Your task to perform on an android device: turn on priority inbox in the gmail app Image 0: 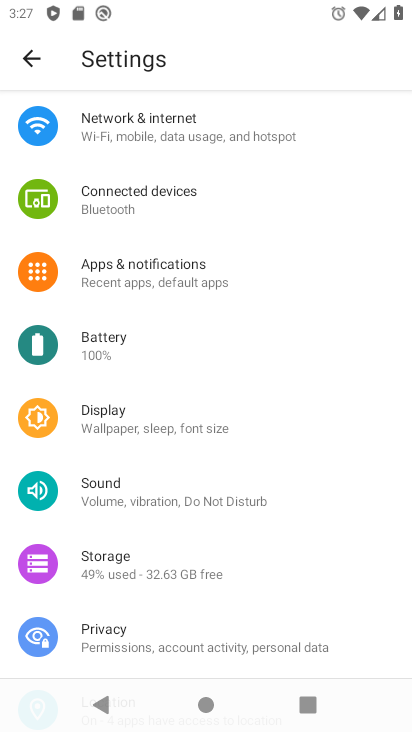
Step 0: press back button
Your task to perform on an android device: turn on priority inbox in the gmail app Image 1: 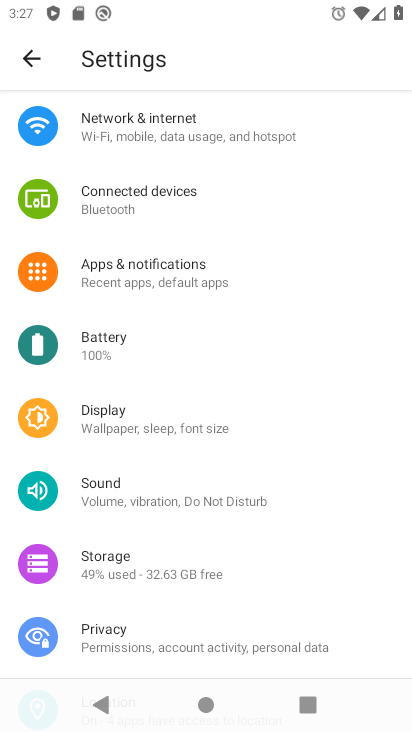
Step 1: press back button
Your task to perform on an android device: turn on priority inbox in the gmail app Image 2: 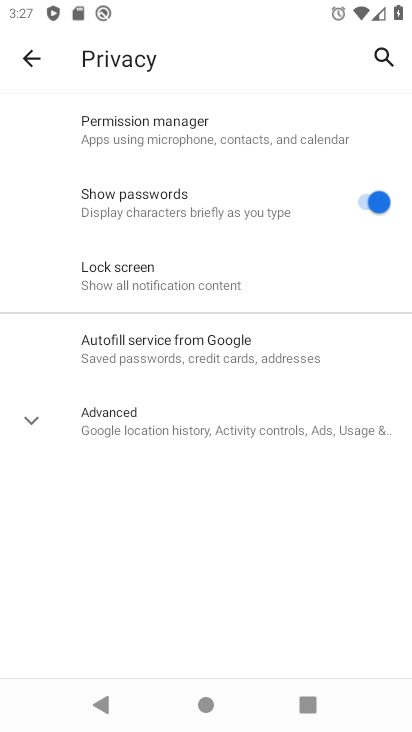
Step 2: press home button
Your task to perform on an android device: turn on priority inbox in the gmail app Image 3: 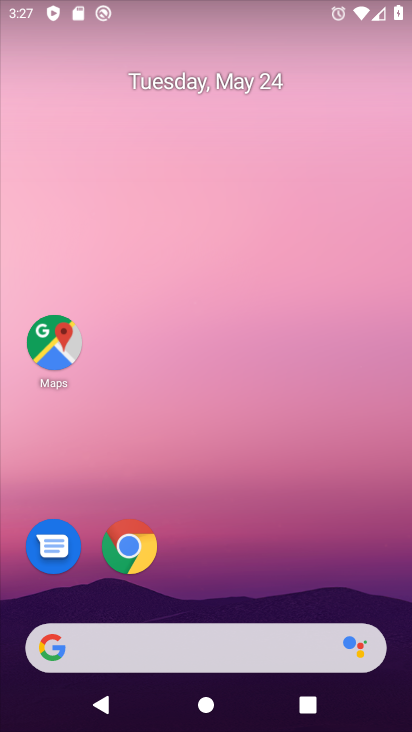
Step 3: drag from (216, 624) to (195, 108)
Your task to perform on an android device: turn on priority inbox in the gmail app Image 4: 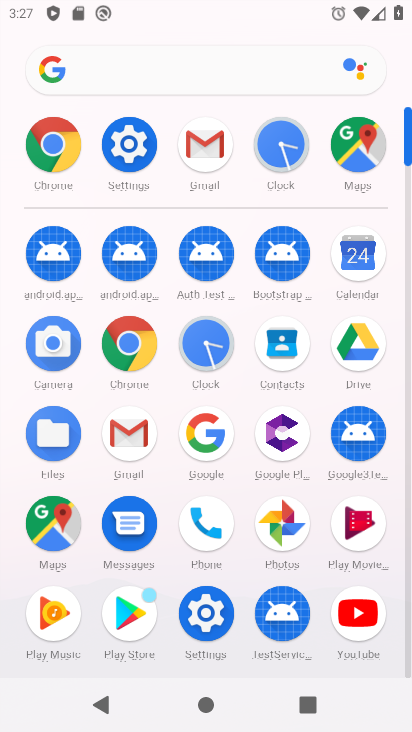
Step 4: click (131, 425)
Your task to perform on an android device: turn on priority inbox in the gmail app Image 5: 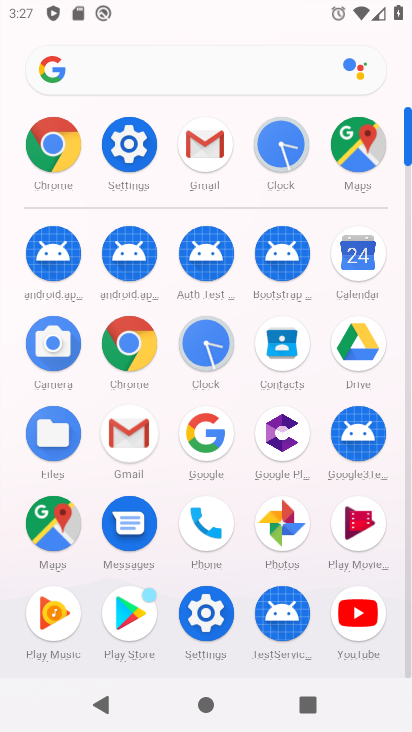
Step 5: click (131, 425)
Your task to perform on an android device: turn on priority inbox in the gmail app Image 6: 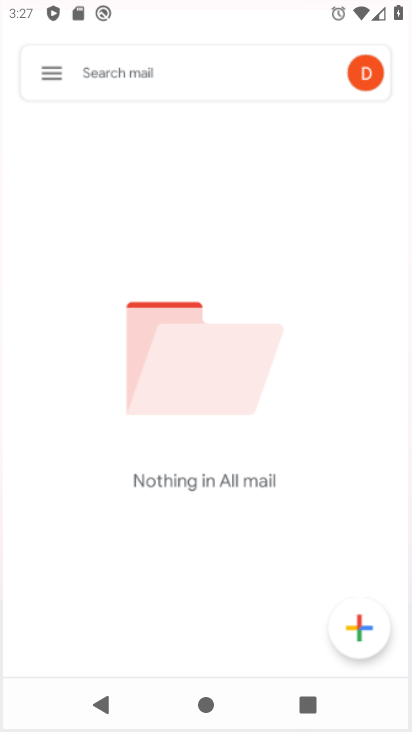
Step 6: click (133, 427)
Your task to perform on an android device: turn on priority inbox in the gmail app Image 7: 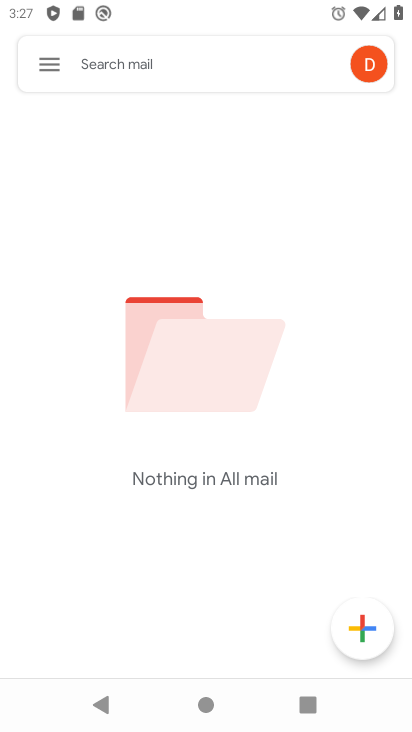
Step 7: click (42, 67)
Your task to perform on an android device: turn on priority inbox in the gmail app Image 8: 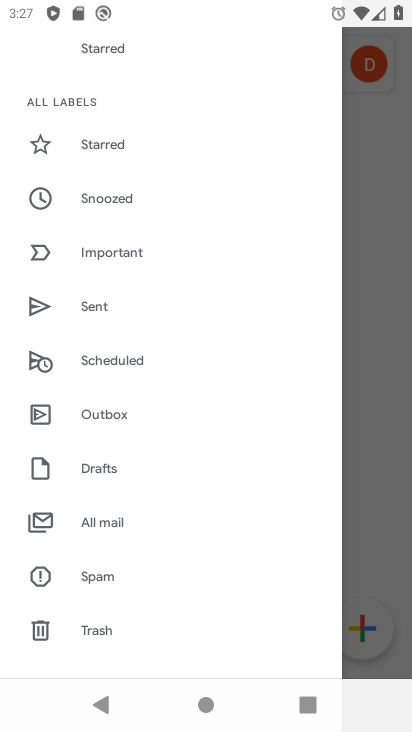
Step 8: drag from (128, 557) to (129, 171)
Your task to perform on an android device: turn on priority inbox in the gmail app Image 9: 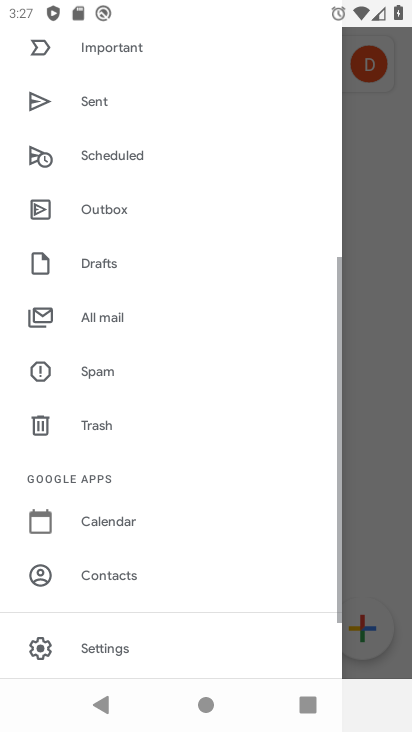
Step 9: drag from (238, 449) to (191, 238)
Your task to perform on an android device: turn on priority inbox in the gmail app Image 10: 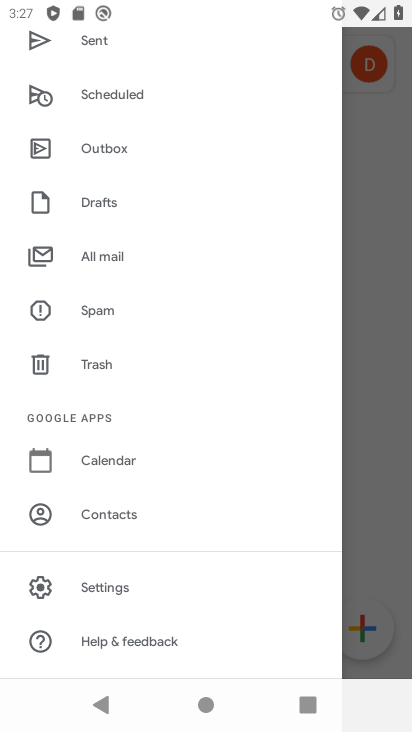
Step 10: click (95, 578)
Your task to perform on an android device: turn on priority inbox in the gmail app Image 11: 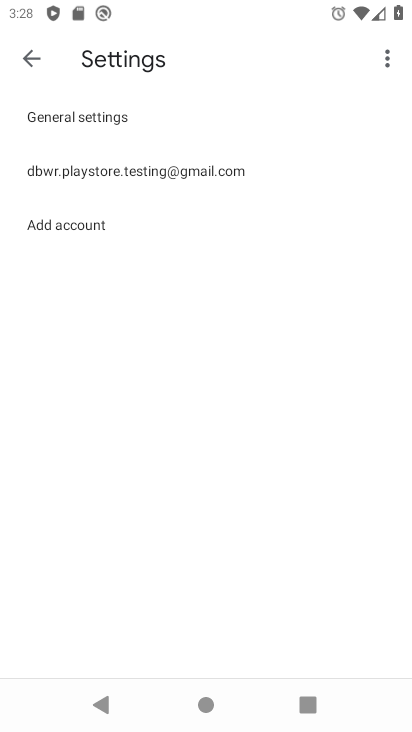
Step 11: click (123, 187)
Your task to perform on an android device: turn on priority inbox in the gmail app Image 12: 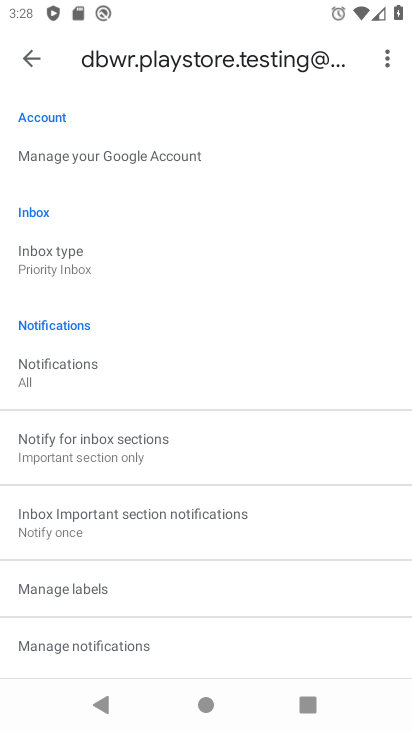
Step 12: click (39, 258)
Your task to perform on an android device: turn on priority inbox in the gmail app Image 13: 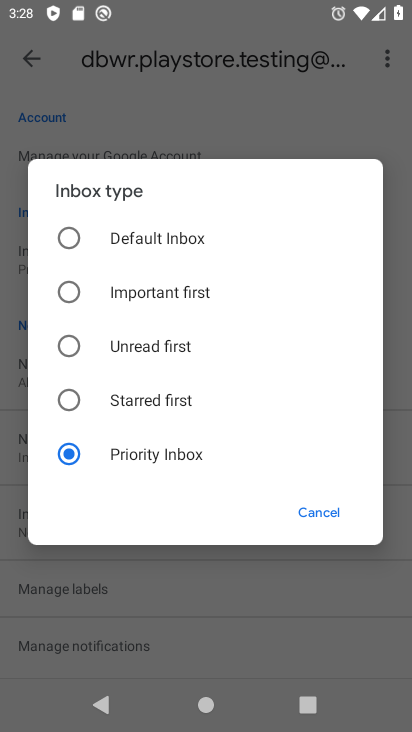
Step 13: click (73, 456)
Your task to perform on an android device: turn on priority inbox in the gmail app Image 14: 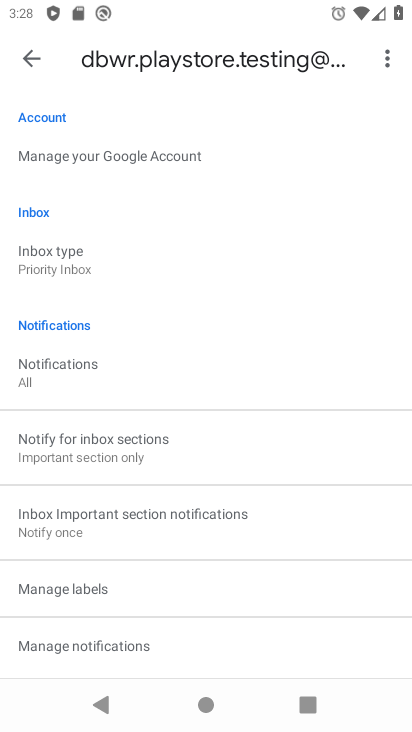
Step 14: task complete